Your task to perform on an android device: add a contact Image 0: 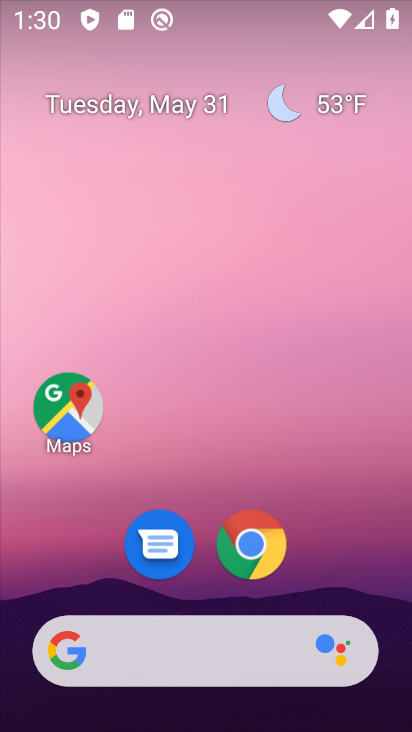
Step 0: drag from (378, 535) to (355, 0)
Your task to perform on an android device: add a contact Image 1: 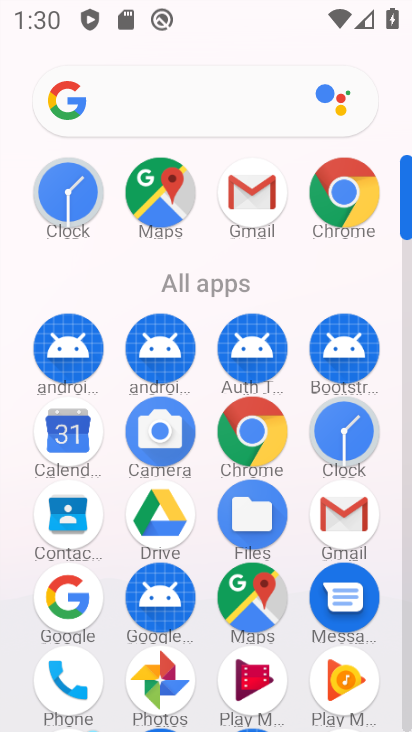
Step 1: click (58, 504)
Your task to perform on an android device: add a contact Image 2: 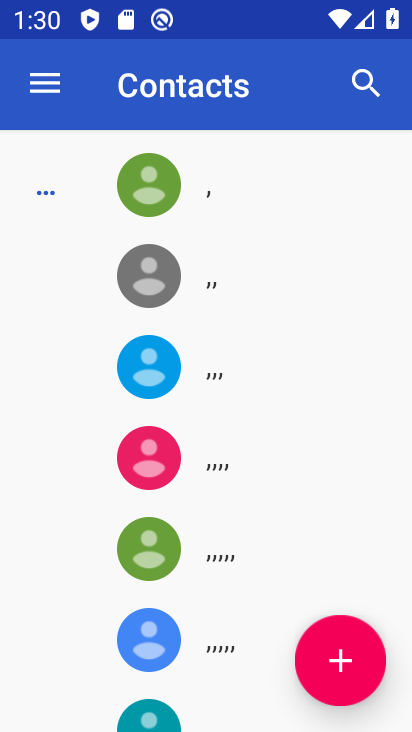
Step 2: click (339, 671)
Your task to perform on an android device: add a contact Image 3: 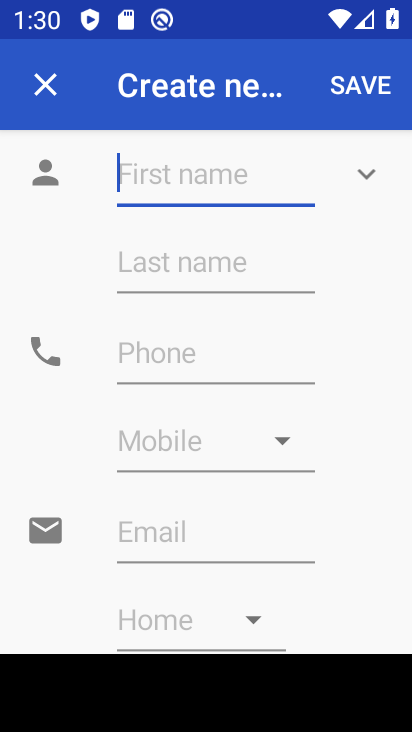
Step 3: type "gdgf"
Your task to perform on an android device: add a contact Image 4: 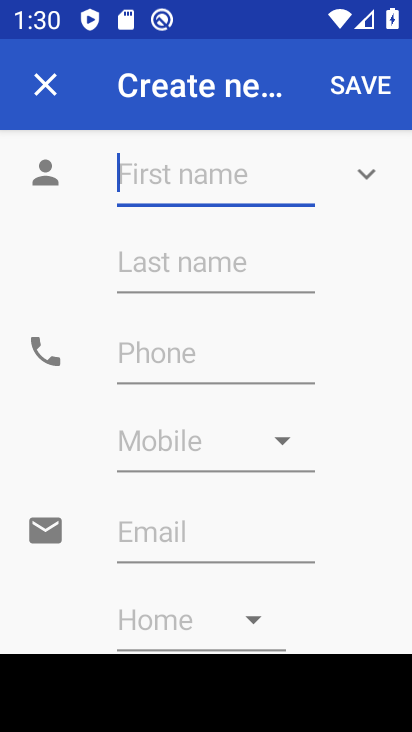
Step 4: click (198, 350)
Your task to perform on an android device: add a contact Image 5: 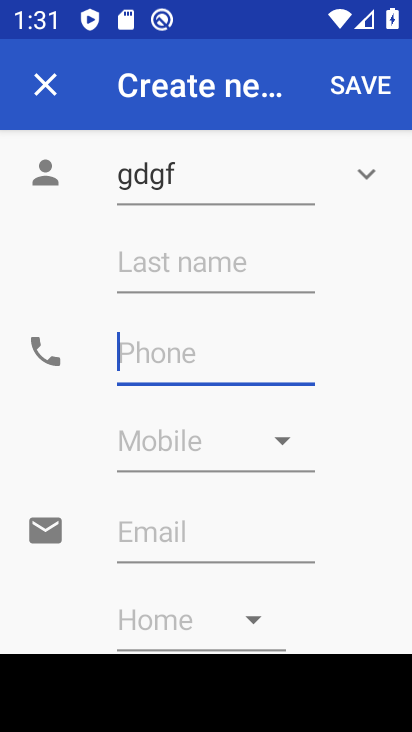
Step 5: type "6767666777"
Your task to perform on an android device: add a contact Image 6: 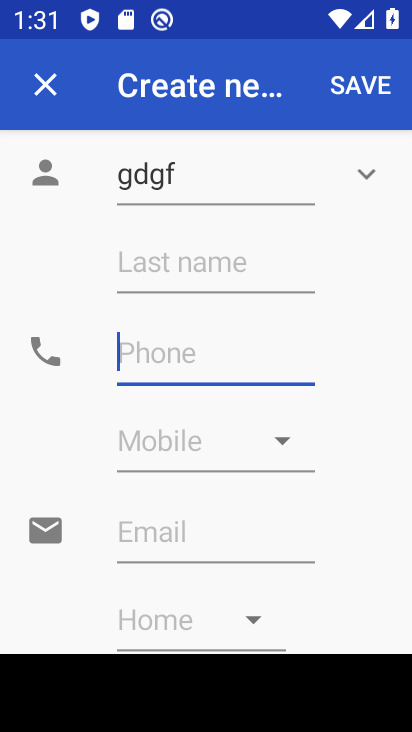
Step 6: click (382, 87)
Your task to perform on an android device: add a contact Image 7: 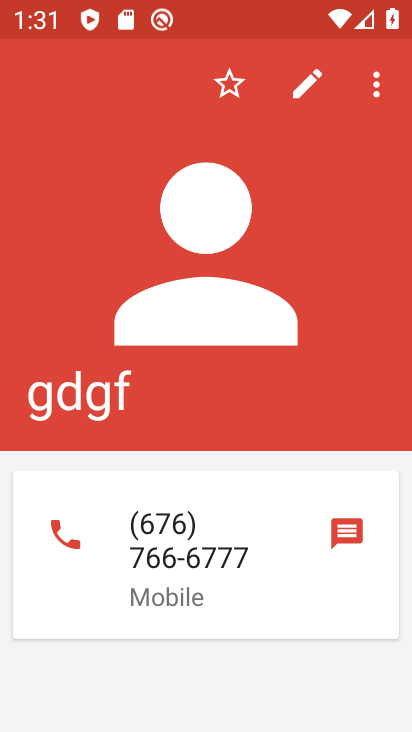
Step 7: task complete